Your task to perform on an android device: turn on sleep mode Image 0: 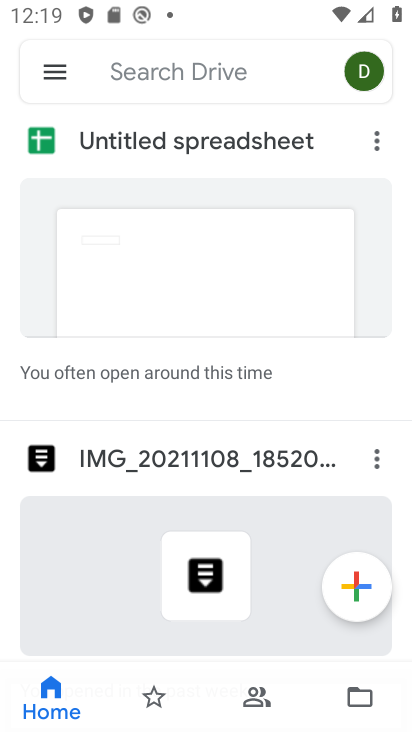
Step 0: press home button
Your task to perform on an android device: turn on sleep mode Image 1: 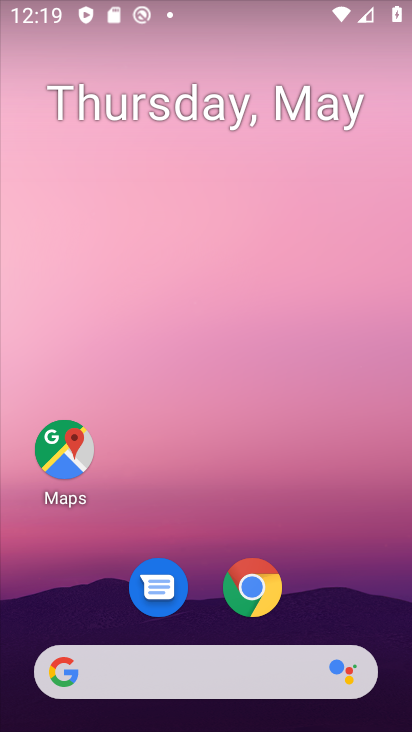
Step 1: drag from (230, 627) to (212, 76)
Your task to perform on an android device: turn on sleep mode Image 2: 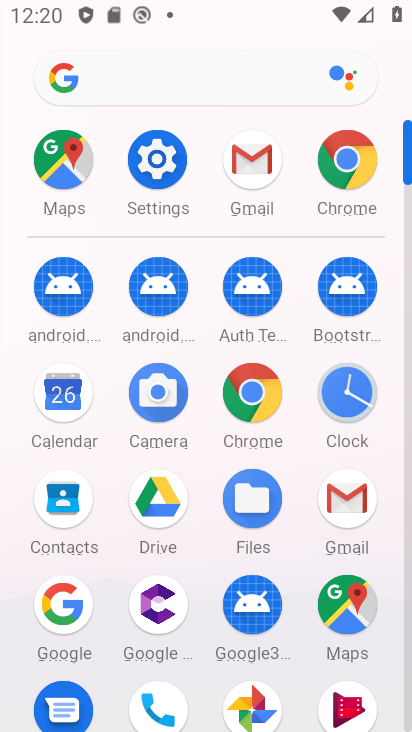
Step 2: click (176, 159)
Your task to perform on an android device: turn on sleep mode Image 3: 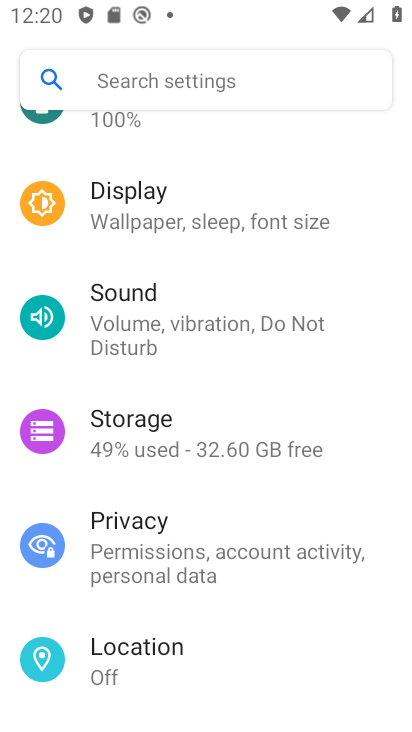
Step 3: drag from (187, 195) to (191, 328)
Your task to perform on an android device: turn on sleep mode Image 4: 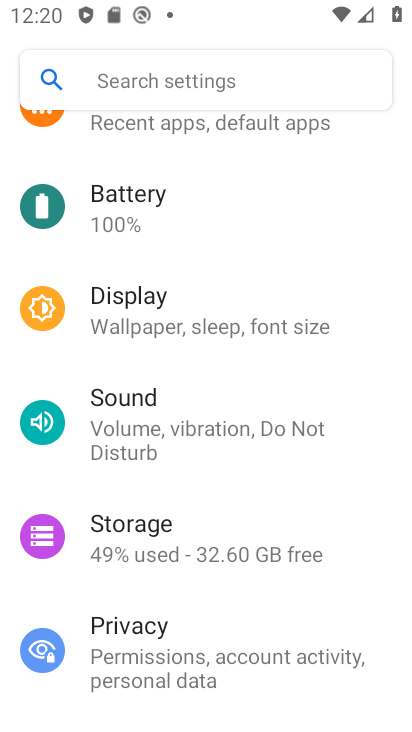
Step 4: click (166, 319)
Your task to perform on an android device: turn on sleep mode Image 5: 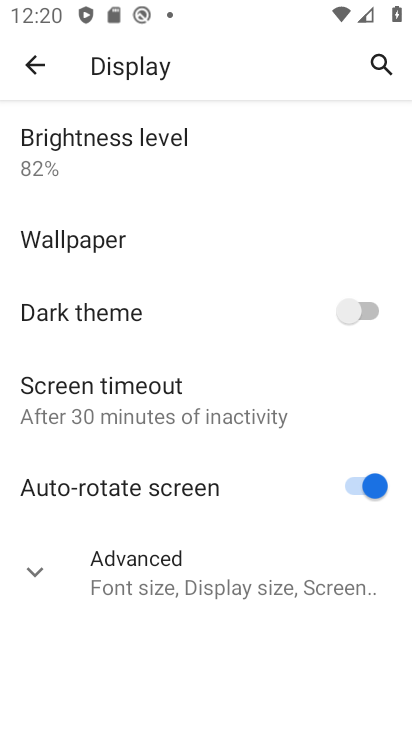
Step 5: task complete